Your task to perform on an android device: turn off priority inbox in the gmail app Image 0: 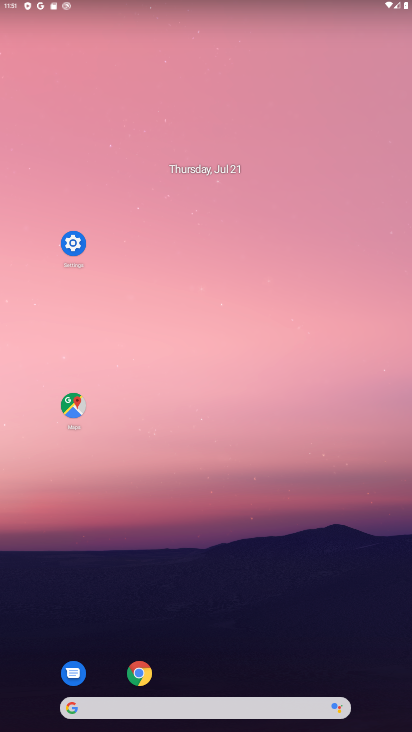
Step 0: drag from (246, 687) to (271, 189)
Your task to perform on an android device: turn off priority inbox in the gmail app Image 1: 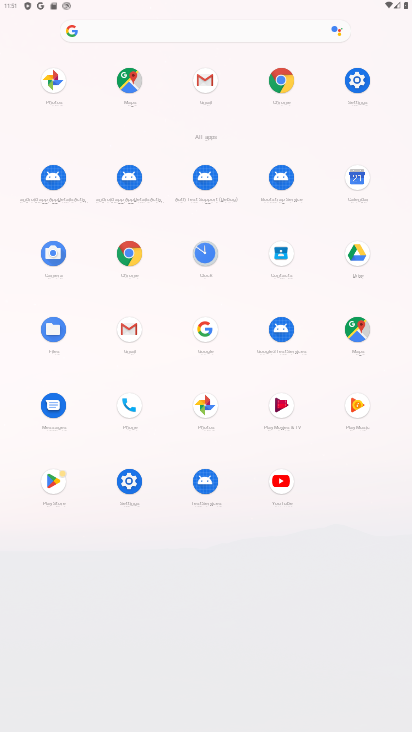
Step 1: click (205, 71)
Your task to perform on an android device: turn off priority inbox in the gmail app Image 2: 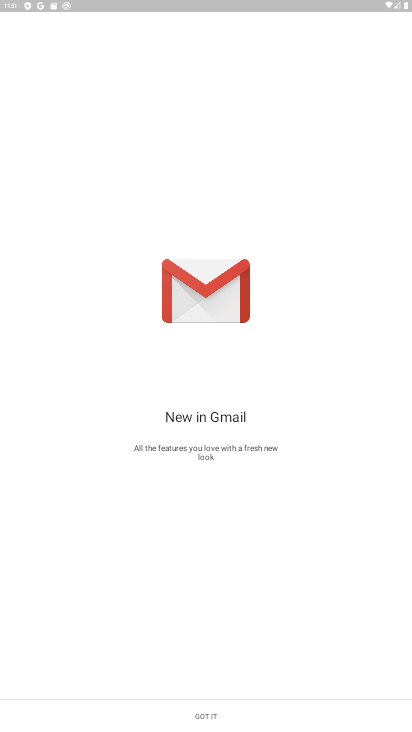
Step 2: click (258, 723)
Your task to perform on an android device: turn off priority inbox in the gmail app Image 3: 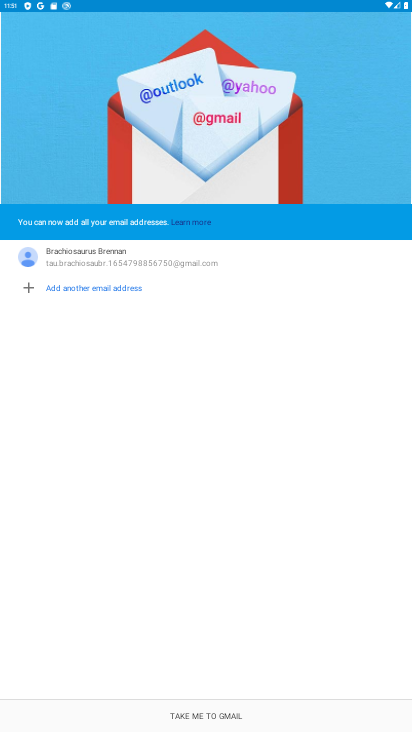
Step 3: click (225, 709)
Your task to perform on an android device: turn off priority inbox in the gmail app Image 4: 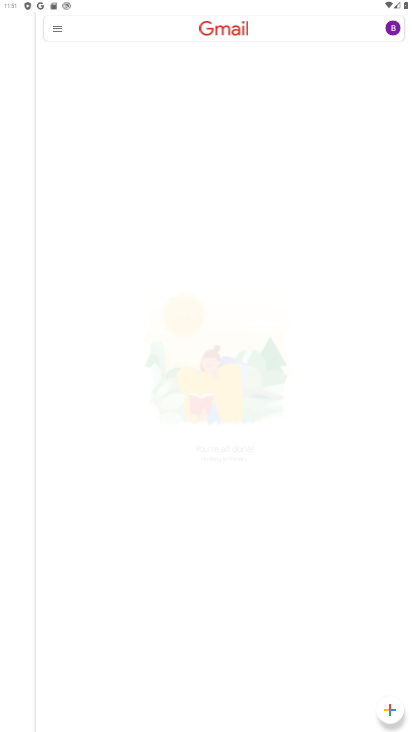
Step 4: click (57, 34)
Your task to perform on an android device: turn off priority inbox in the gmail app Image 5: 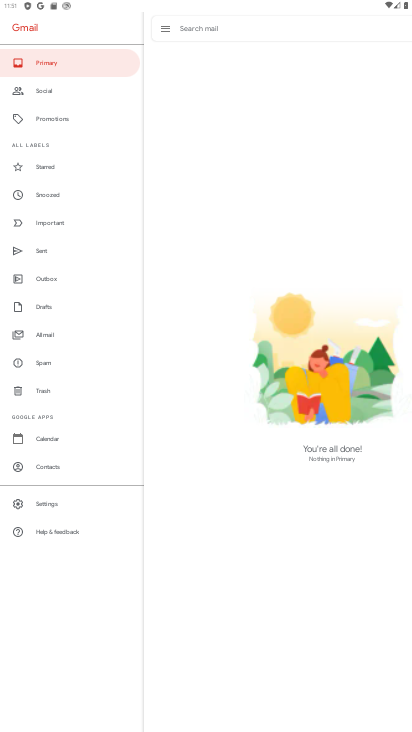
Step 5: click (54, 494)
Your task to perform on an android device: turn off priority inbox in the gmail app Image 6: 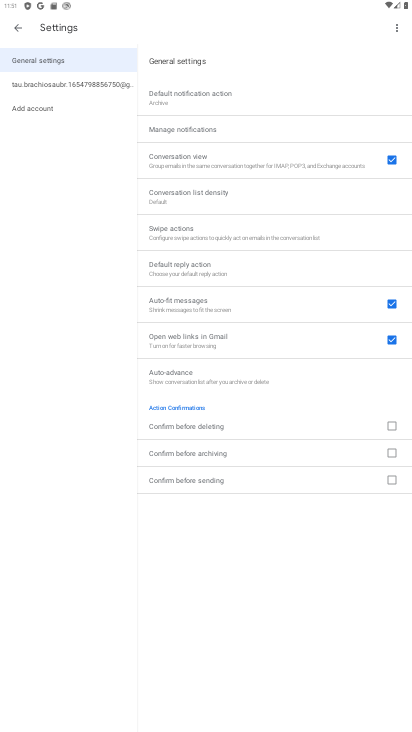
Step 6: click (73, 88)
Your task to perform on an android device: turn off priority inbox in the gmail app Image 7: 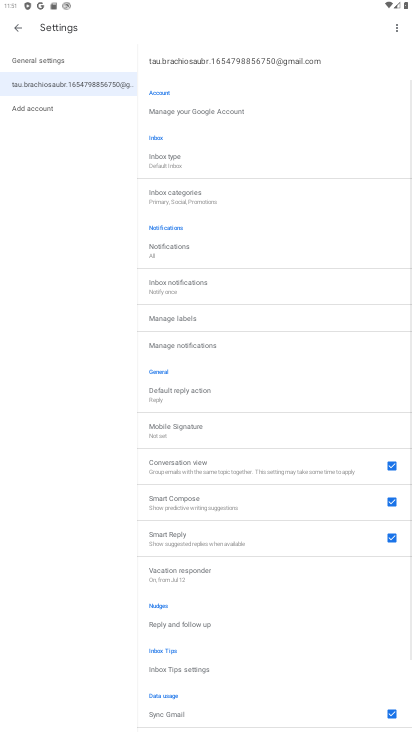
Step 7: click (234, 162)
Your task to perform on an android device: turn off priority inbox in the gmail app Image 8: 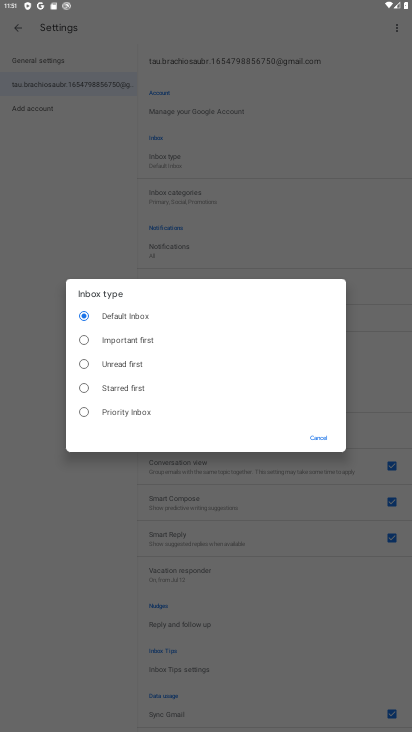
Step 8: task complete